Your task to perform on an android device: open a bookmark in the chrome app Image 0: 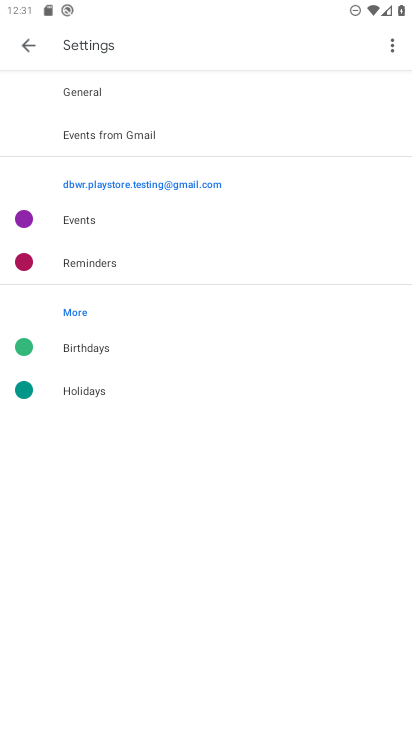
Step 0: press home button
Your task to perform on an android device: open a bookmark in the chrome app Image 1: 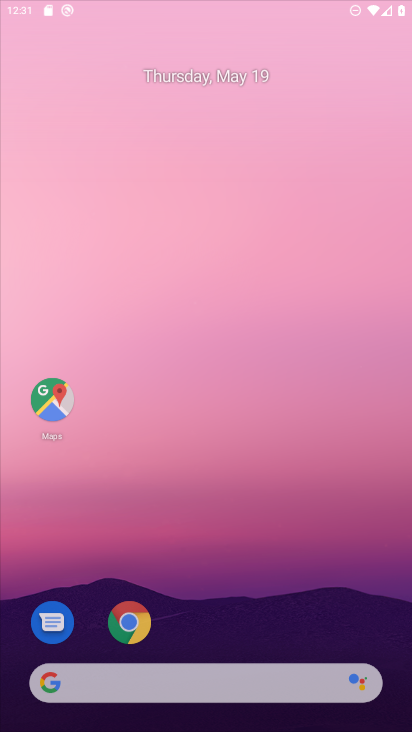
Step 1: drag from (202, 692) to (303, 266)
Your task to perform on an android device: open a bookmark in the chrome app Image 2: 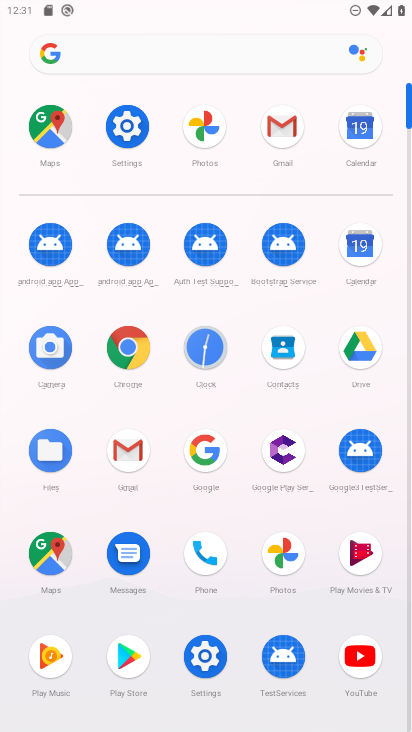
Step 2: click (133, 357)
Your task to perform on an android device: open a bookmark in the chrome app Image 3: 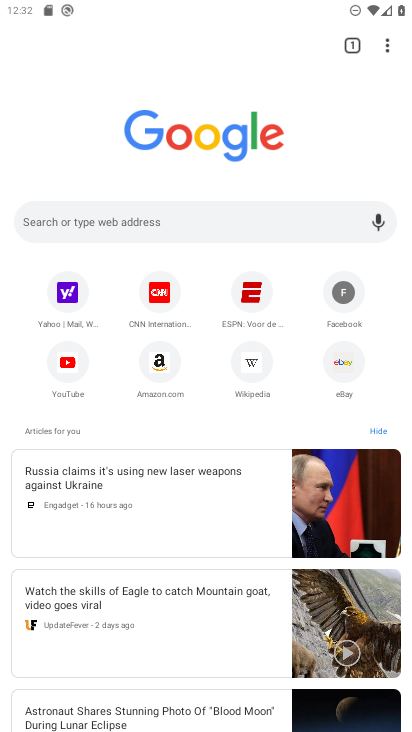
Step 3: drag from (171, 652) to (253, 722)
Your task to perform on an android device: open a bookmark in the chrome app Image 4: 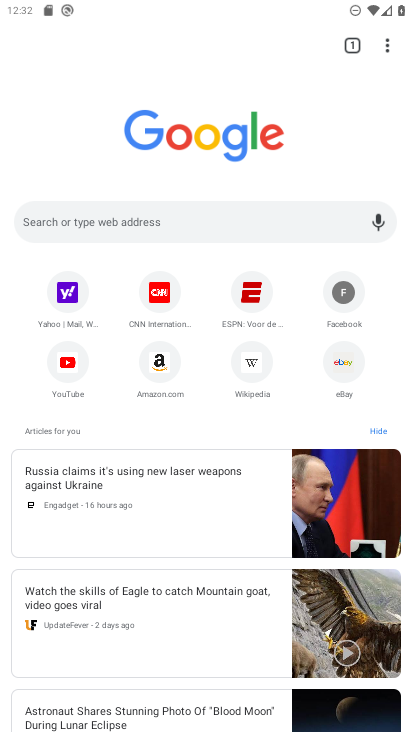
Step 4: click (387, 42)
Your task to perform on an android device: open a bookmark in the chrome app Image 5: 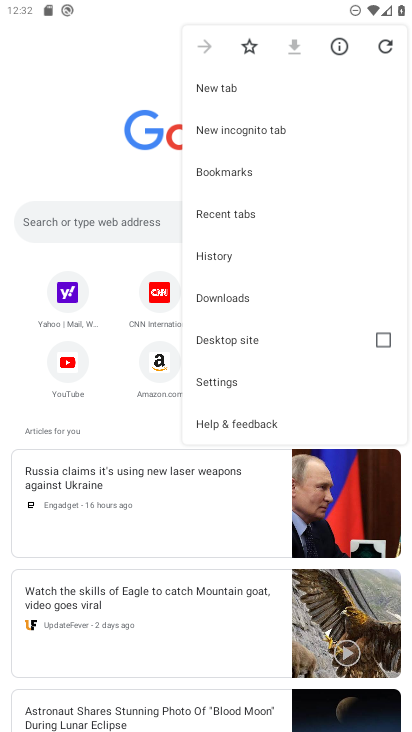
Step 5: click (248, 172)
Your task to perform on an android device: open a bookmark in the chrome app Image 6: 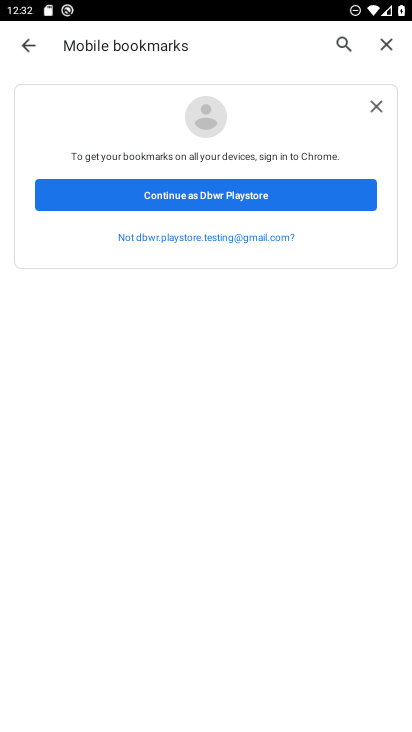
Step 6: task complete